Your task to perform on an android device: toggle data saver in the chrome app Image 0: 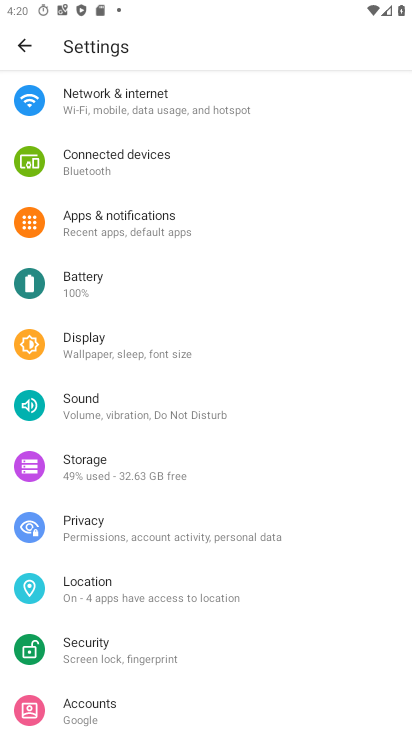
Step 0: press home button
Your task to perform on an android device: toggle data saver in the chrome app Image 1: 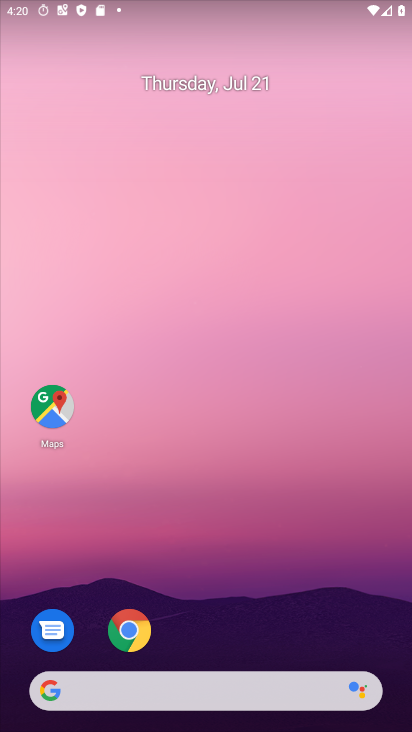
Step 1: click (131, 630)
Your task to perform on an android device: toggle data saver in the chrome app Image 2: 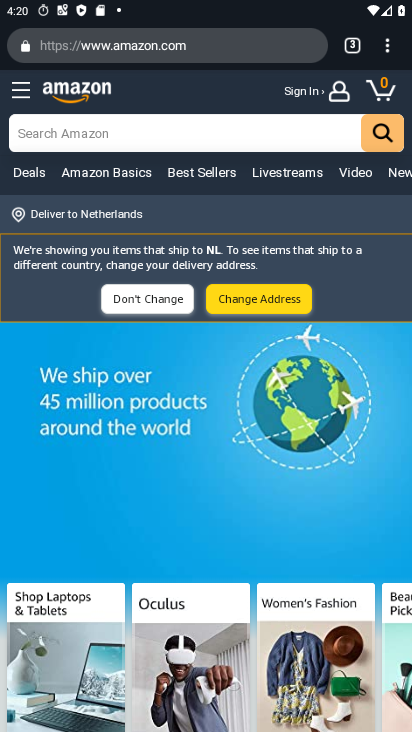
Step 2: click (388, 48)
Your task to perform on an android device: toggle data saver in the chrome app Image 3: 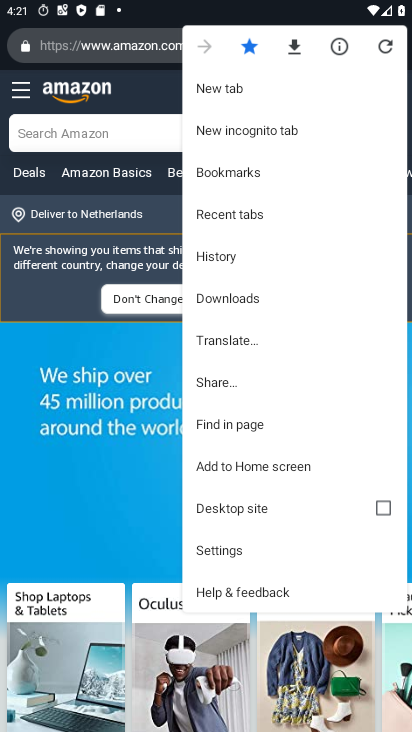
Step 3: click (230, 550)
Your task to perform on an android device: toggle data saver in the chrome app Image 4: 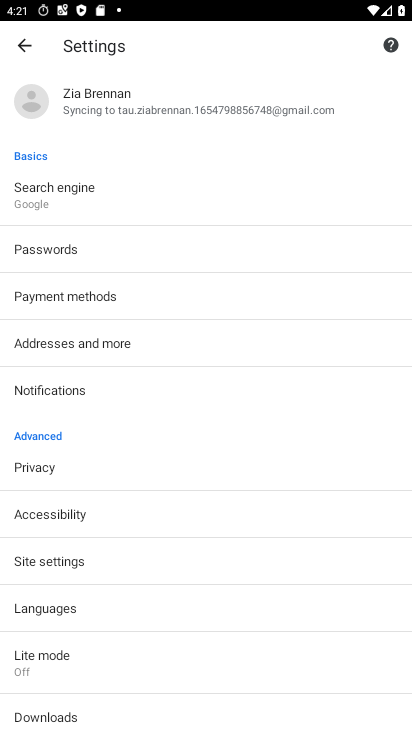
Step 4: click (52, 658)
Your task to perform on an android device: toggle data saver in the chrome app Image 5: 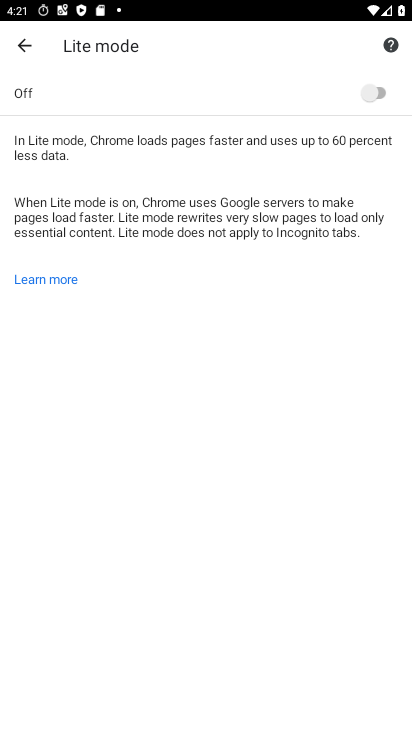
Step 5: click (375, 93)
Your task to perform on an android device: toggle data saver in the chrome app Image 6: 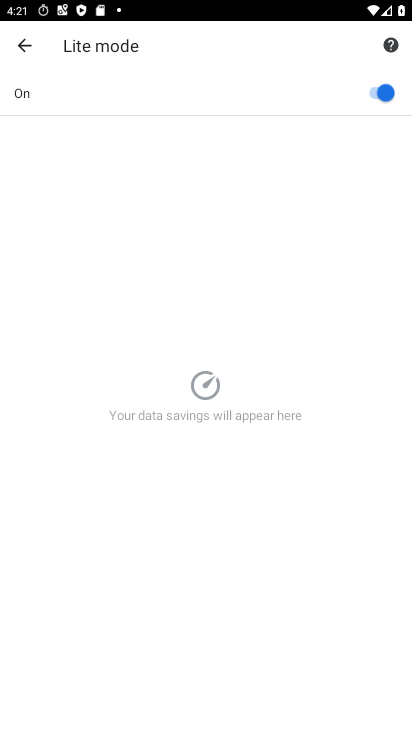
Step 6: task complete